Your task to perform on an android device: Search for pizza restaurants on Maps Image 0: 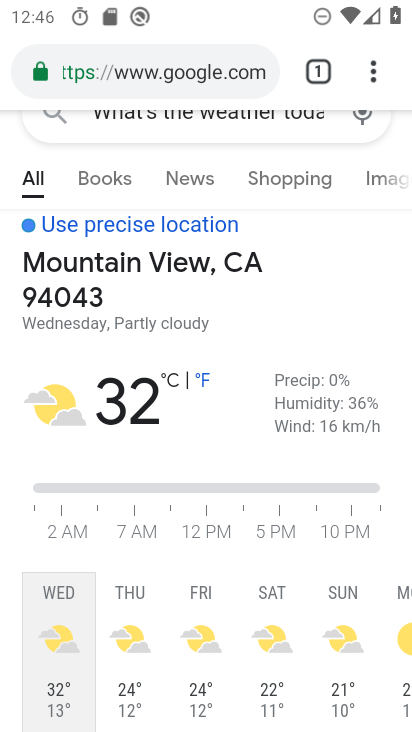
Step 0: press home button
Your task to perform on an android device: Search for pizza restaurants on Maps Image 1: 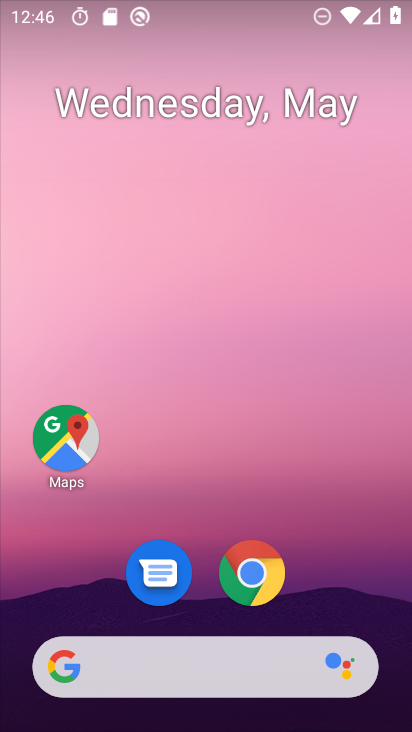
Step 1: click (57, 434)
Your task to perform on an android device: Search for pizza restaurants on Maps Image 2: 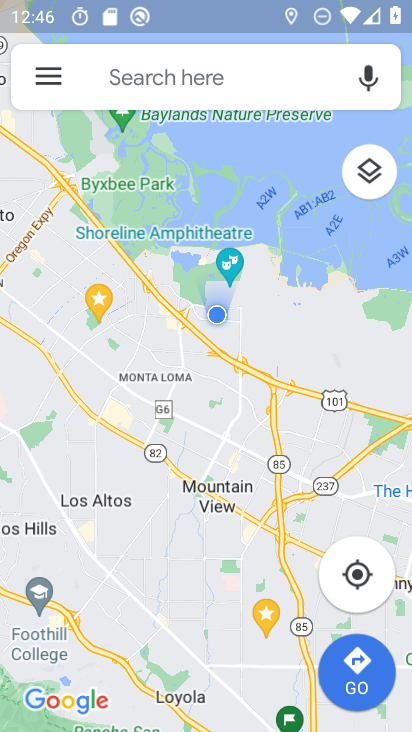
Step 2: click (239, 69)
Your task to perform on an android device: Search for pizza restaurants on Maps Image 3: 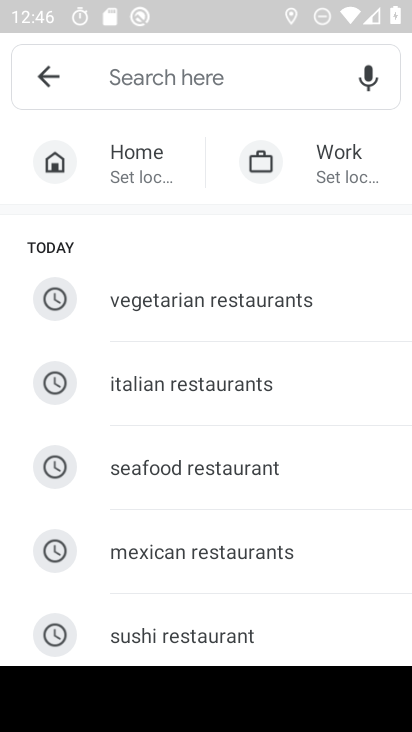
Step 3: drag from (288, 599) to (298, 455)
Your task to perform on an android device: Search for pizza restaurants on Maps Image 4: 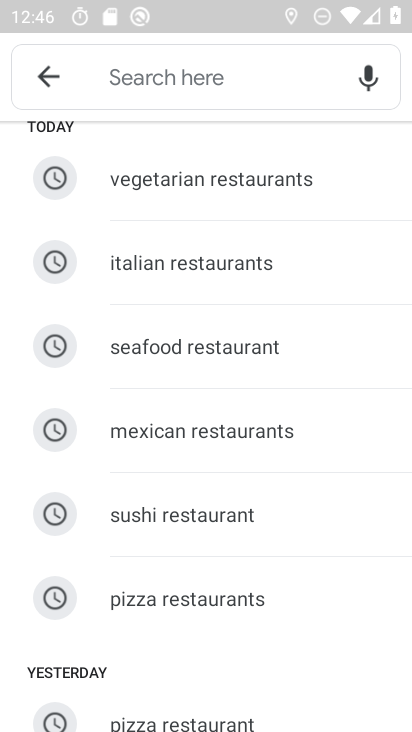
Step 4: click (190, 593)
Your task to perform on an android device: Search for pizza restaurants on Maps Image 5: 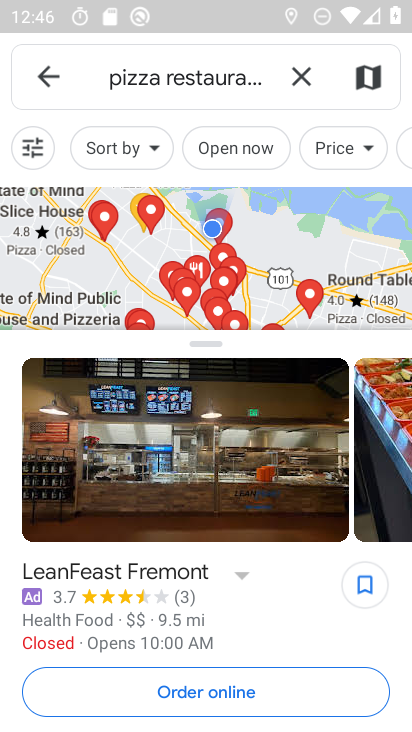
Step 5: task complete